Your task to perform on an android device: Show me productivity apps on the Play Store Image 0: 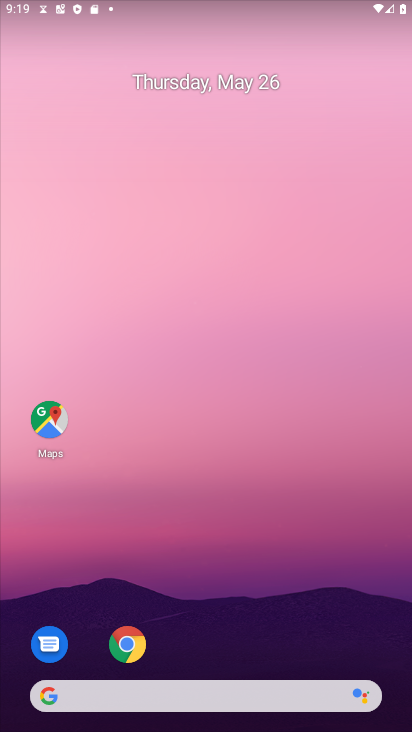
Step 0: drag from (237, 642) to (310, 76)
Your task to perform on an android device: Show me productivity apps on the Play Store Image 1: 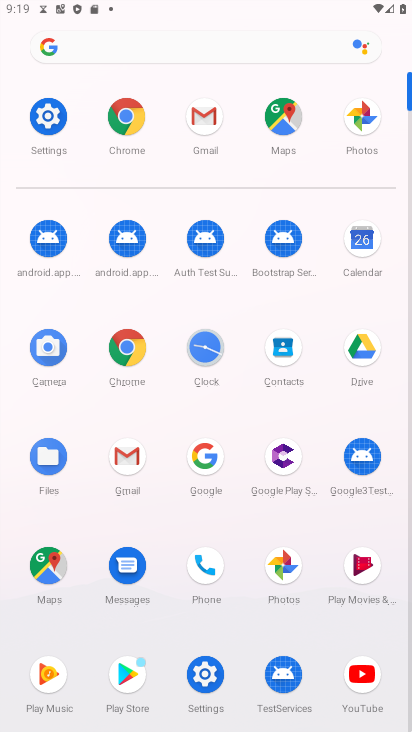
Step 1: click (126, 680)
Your task to perform on an android device: Show me productivity apps on the Play Store Image 2: 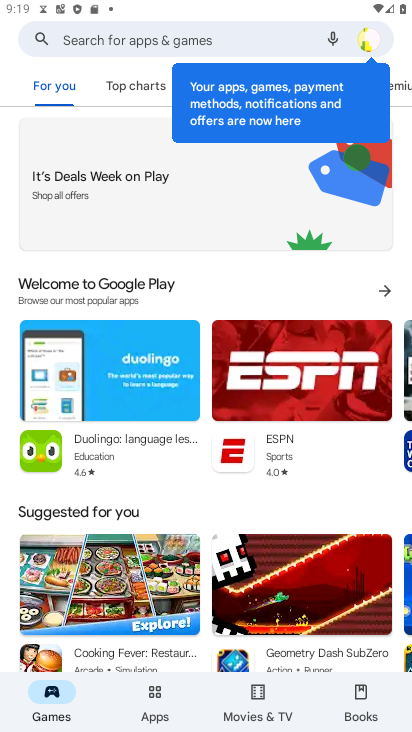
Step 2: click (162, 693)
Your task to perform on an android device: Show me productivity apps on the Play Store Image 3: 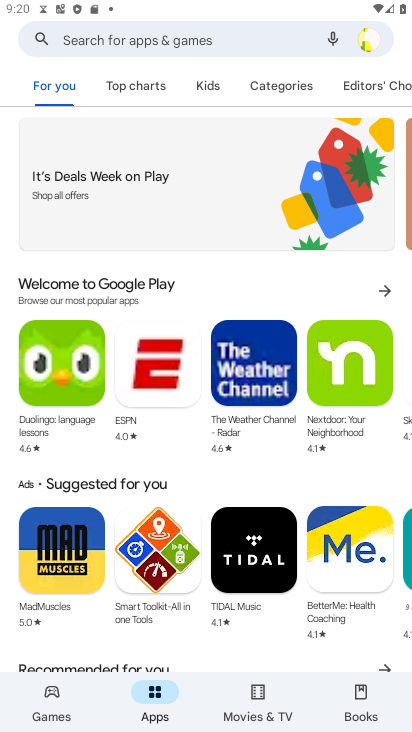
Step 3: drag from (244, 591) to (260, 137)
Your task to perform on an android device: Show me productivity apps on the Play Store Image 4: 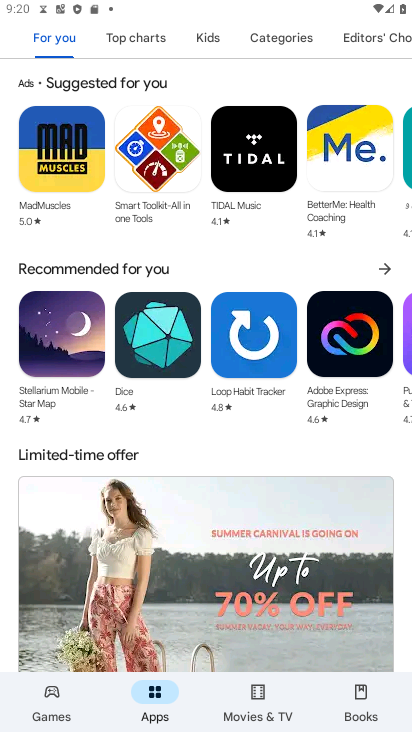
Step 4: drag from (279, 560) to (294, 156)
Your task to perform on an android device: Show me productivity apps on the Play Store Image 5: 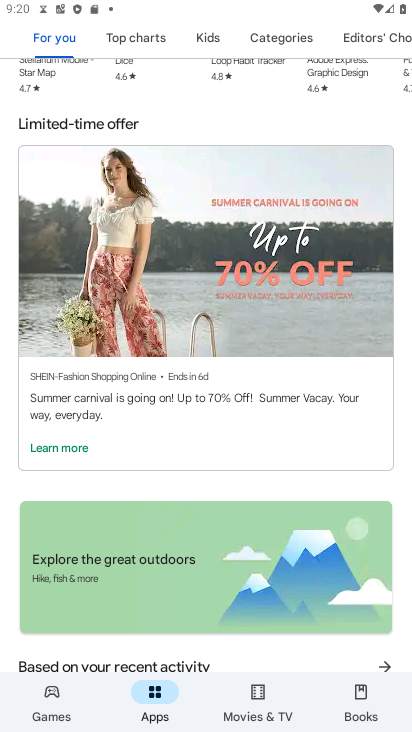
Step 5: drag from (223, 607) to (313, 114)
Your task to perform on an android device: Show me productivity apps on the Play Store Image 6: 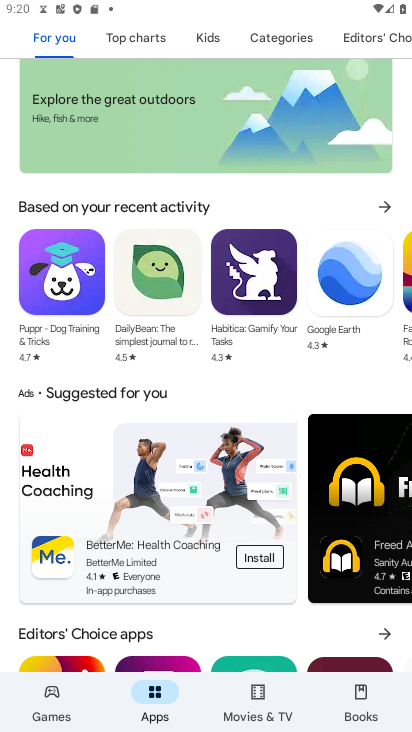
Step 6: drag from (193, 634) to (284, 66)
Your task to perform on an android device: Show me productivity apps on the Play Store Image 7: 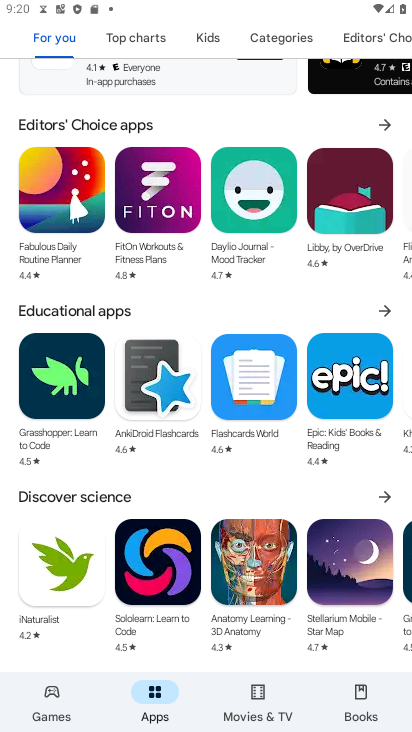
Step 7: drag from (241, 594) to (313, 81)
Your task to perform on an android device: Show me productivity apps on the Play Store Image 8: 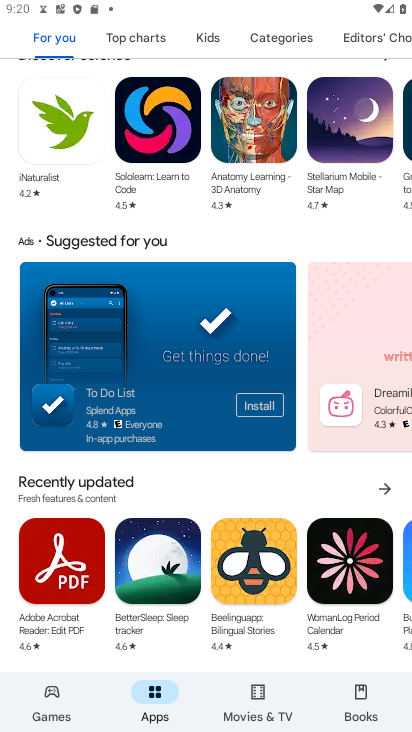
Step 8: drag from (215, 586) to (295, 60)
Your task to perform on an android device: Show me productivity apps on the Play Store Image 9: 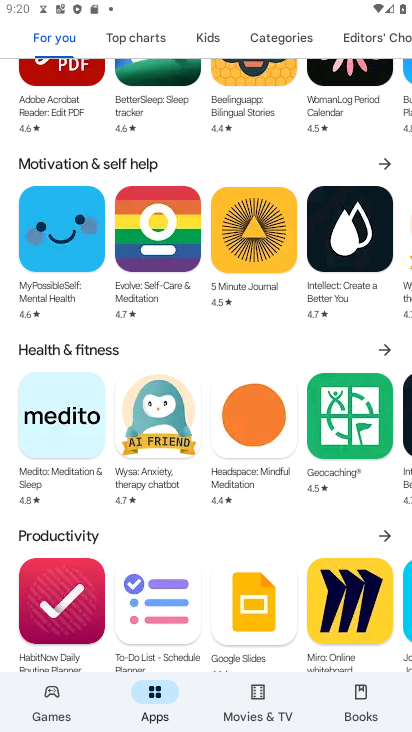
Step 9: click (386, 532)
Your task to perform on an android device: Show me productivity apps on the Play Store Image 10: 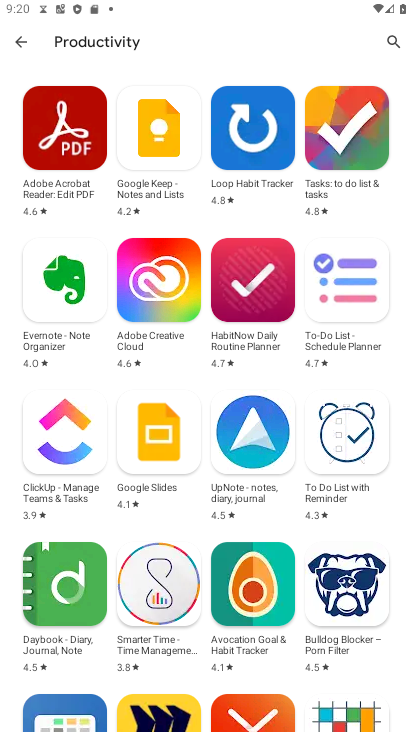
Step 10: task complete